Your task to perform on an android device: change keyboard looks Image 0: 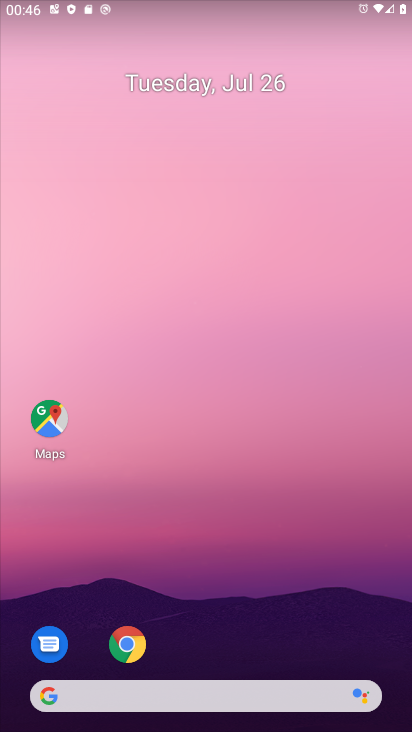
Step 0: drag from (306, 626) to (260, 105)
Your task to perform on an android device: change keyboard looks Image 1: 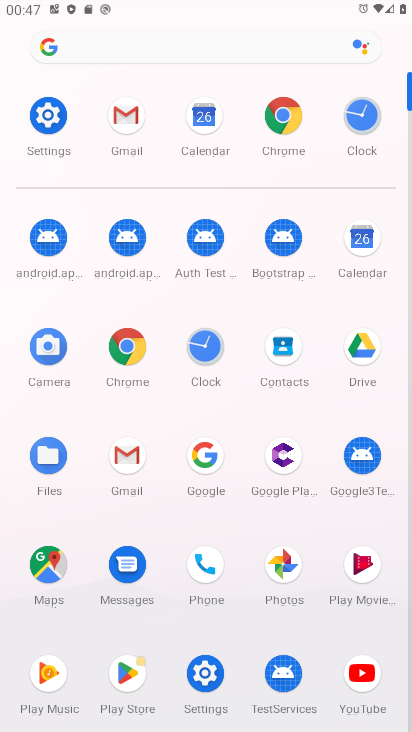
Step 1: click (42, 130)
Your task to perform on an android device: change keyboard looks Image 2: 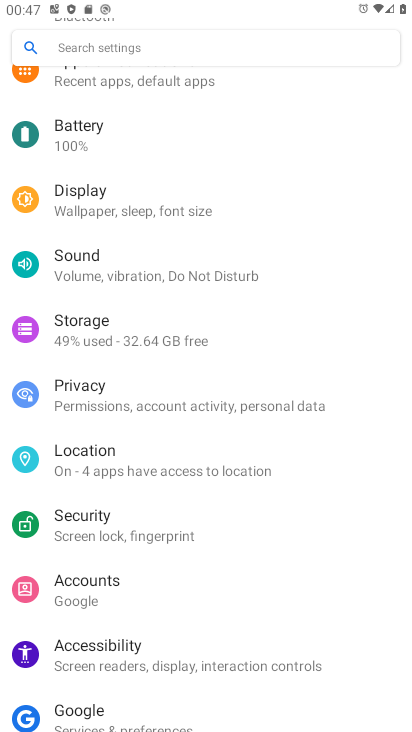
Step 2: drag from (169, 611) to (180, 249)
Your task to perform on an android device: change keyboard looks Image 3: 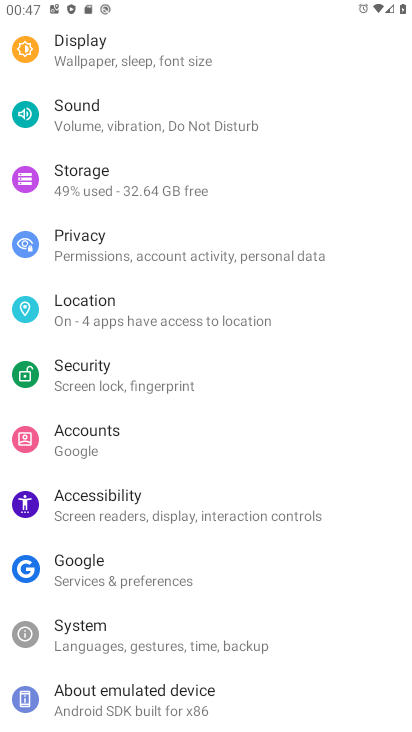
Step 3: drag from (174, 276) to (126, 117)
Your task to perform on an android device: change keyboard looks Image 4: 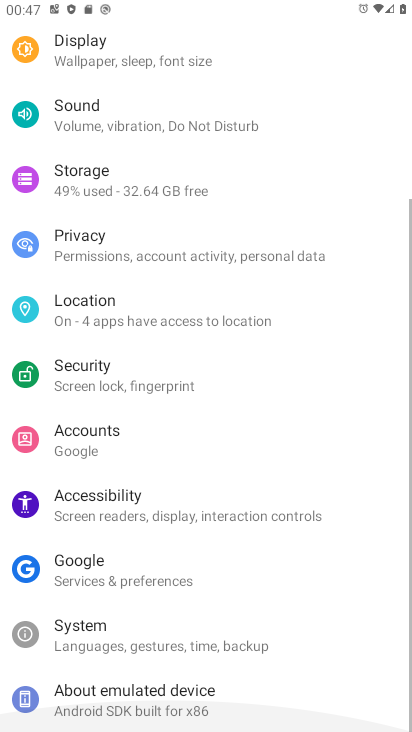
Step 4: drag from (191, 385) to (218, 268)
Your task to perform on an android device: change keyboard looks Image 5: 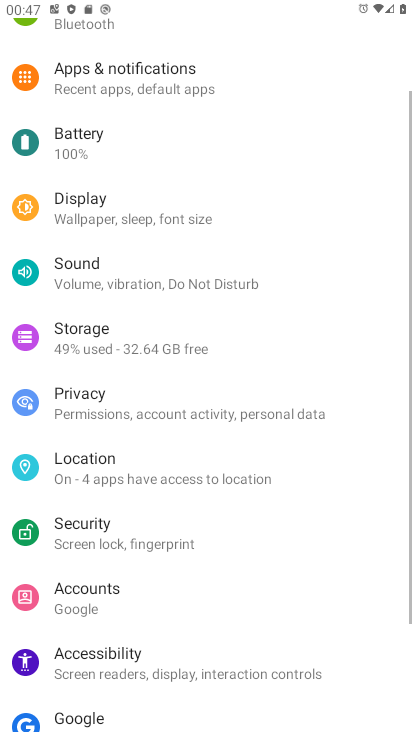
Step 5: drag from (145, 654) to (147, 289)
Your task to perform on an android device: change keyboard looks Image 6: 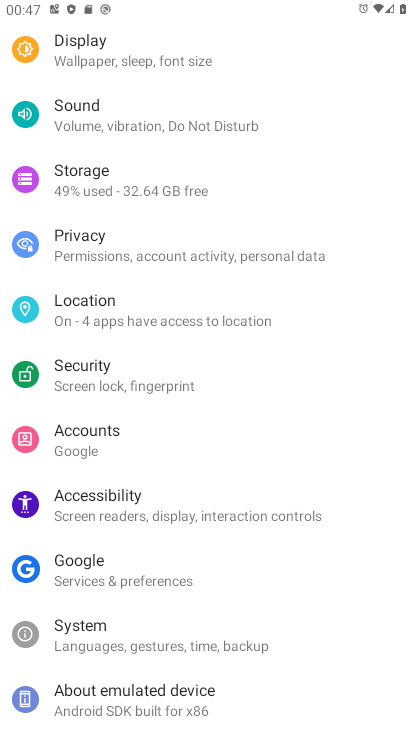
Step 6: click (153, 377)
Your task to perform on an android device: change keyboard looks Image 7: 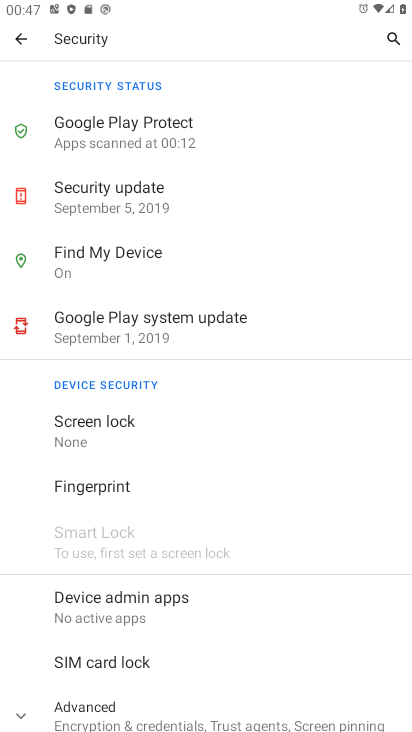
Step 7: click (22, 34)
Your task to perform on an android device: change keyboard looks Image 8: 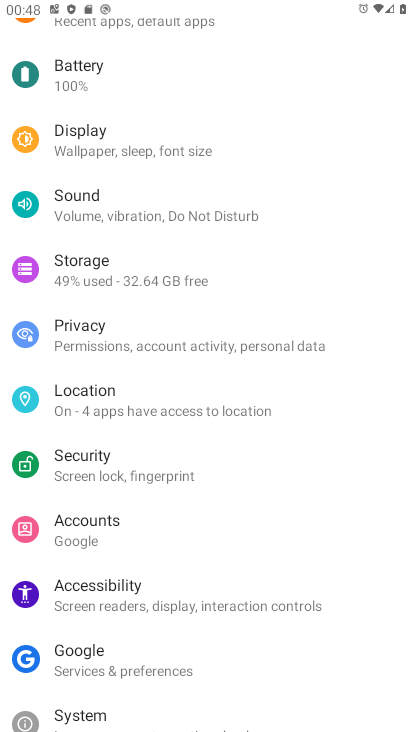
Step 8: drag from (185, 668) to (209, 184)
Your task to perform on an android device: change keyboard looks Image 9: 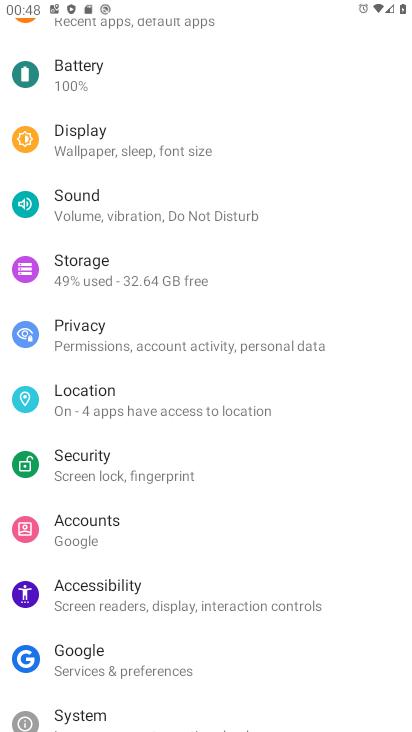
Step 9: click (254, 167)
Your task to perform on an android device: change keyboard looks Image 10: 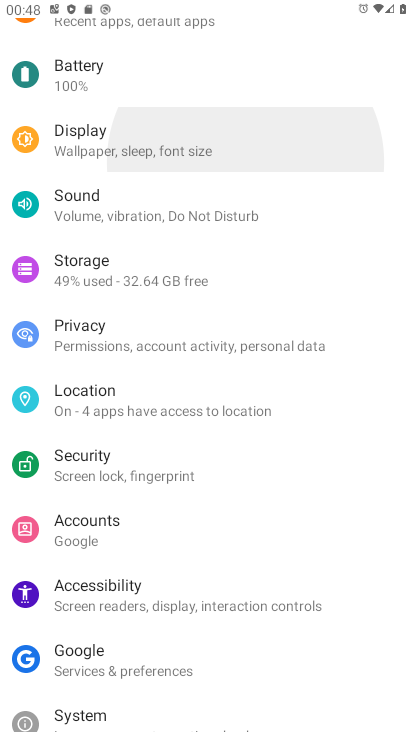
Step 10: task complete